Your task to perform on an android device: Open Google Chrome and click the shortcut for Amazon.com Image 0: 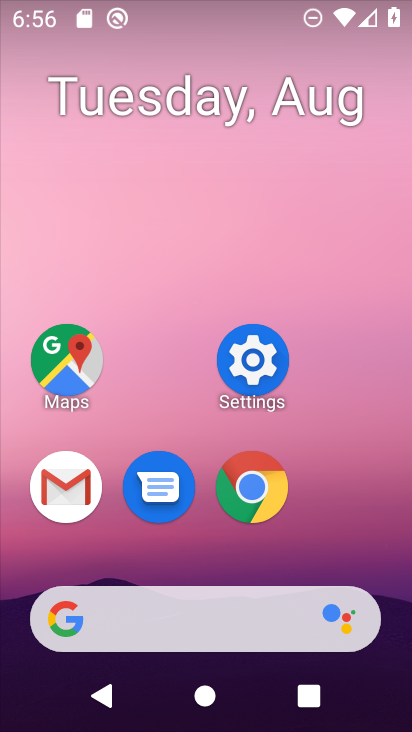
Step 0: click (256, 487)
Your task to perform on an android device: Open Google Chrome and click the shortcut for Amazon.com Image 1: 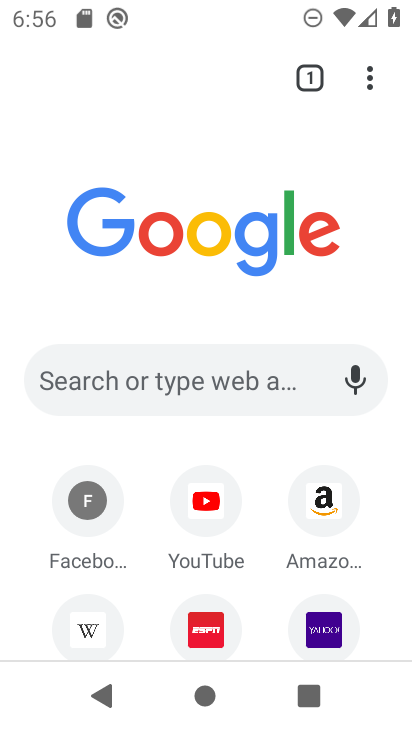
Step 1: click (331, 507)
Your task to perform on an android device: Open Google Chrome and click the shortcut for Amazon.com Image 2: 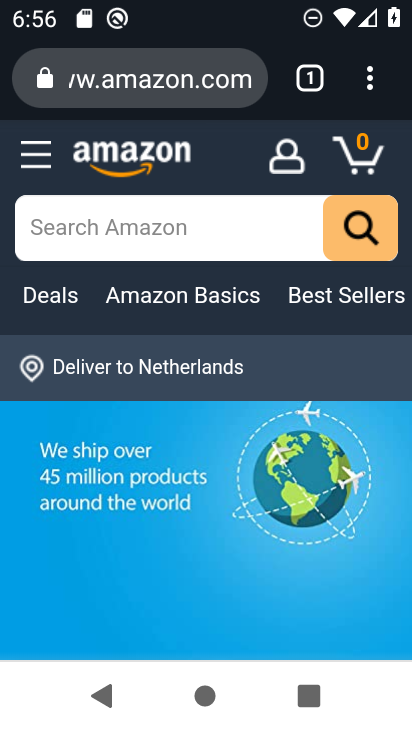
Step 2: task complete